Your task to perform on an android device: Go to accessibility settings Image 0: 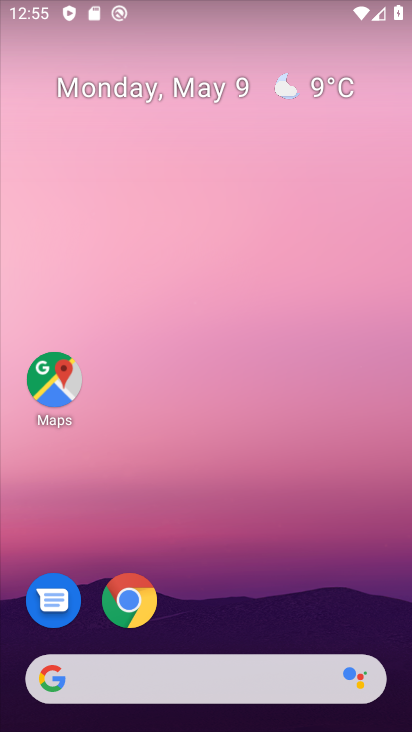
Step 0: drag from (279, 577) to (276, 35)
Your task to perform on an android device: Go to accessibility settings Image 1: 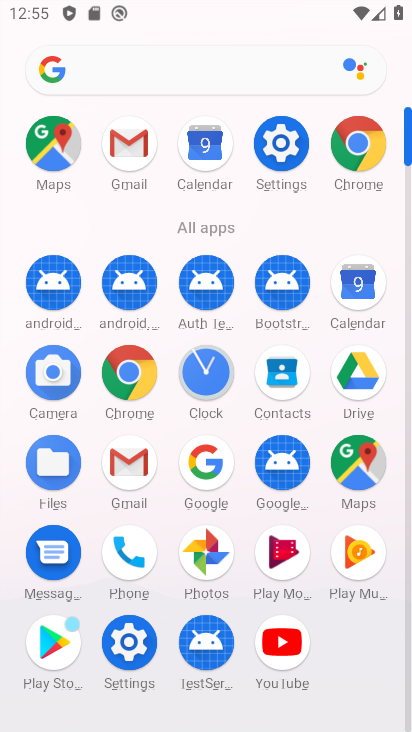
Step 1: click (141, 647)
Your task to perform on an android device: Go to accessibility settings Image 2: 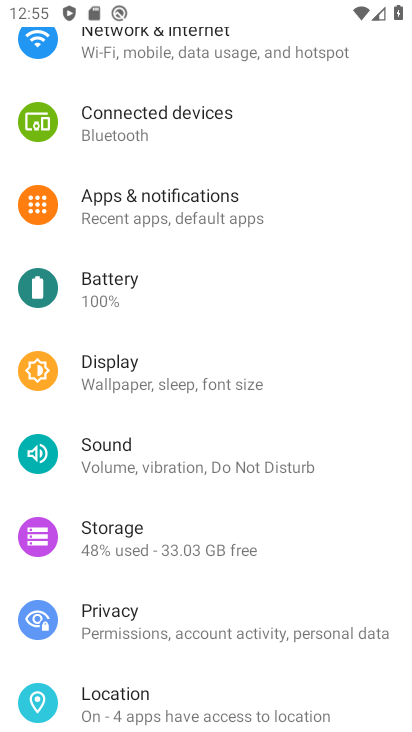
Step 2: drag from (214, 644) to (382, 247)
Your task to perform on an android device: Go to accessibility settings Image 3: 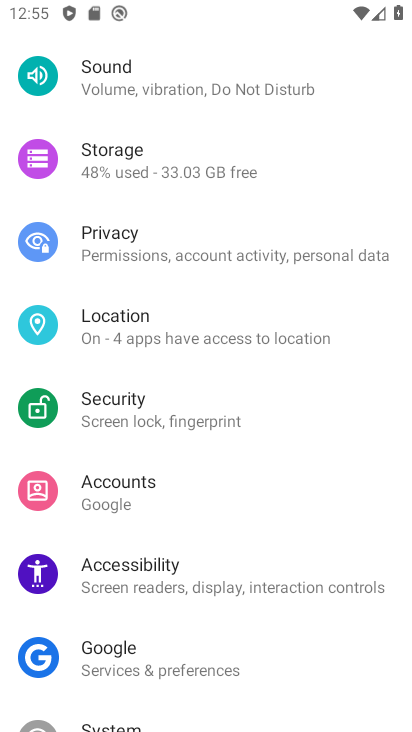
Step 3: click (182, 572)
Your task to perform on an android device: Go to accessibility settings Image 4: 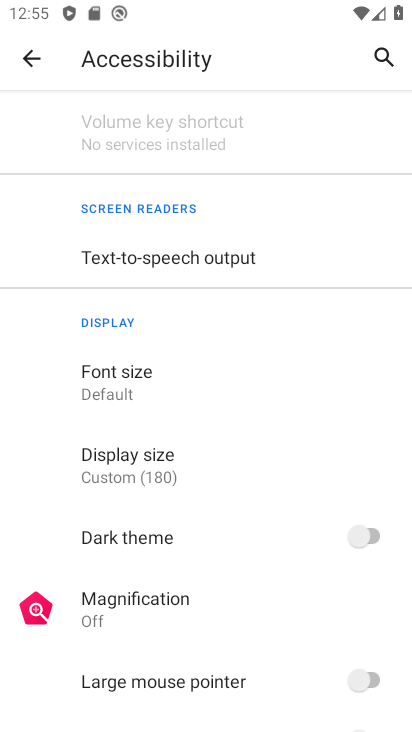
Step 4: task complete